Your task to perform on an android device: Add "razer blade" to the cart on newegg.com, then select checkout. Image 0: 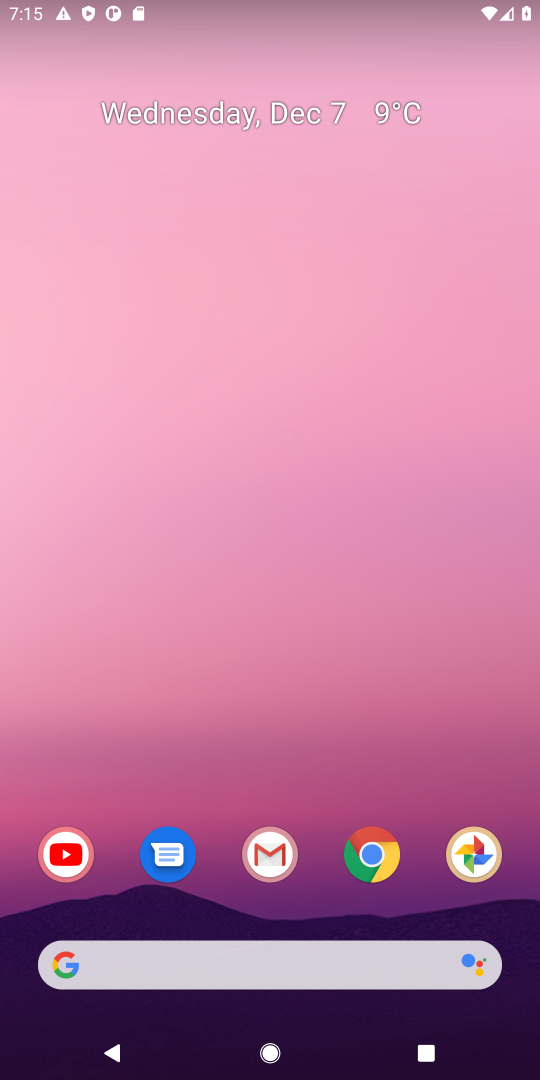
Step 0: click (311, 956)
Your task to perform on an android device: Add "razer blade" to the cart on newegg.com, then select checkout. Image 1: 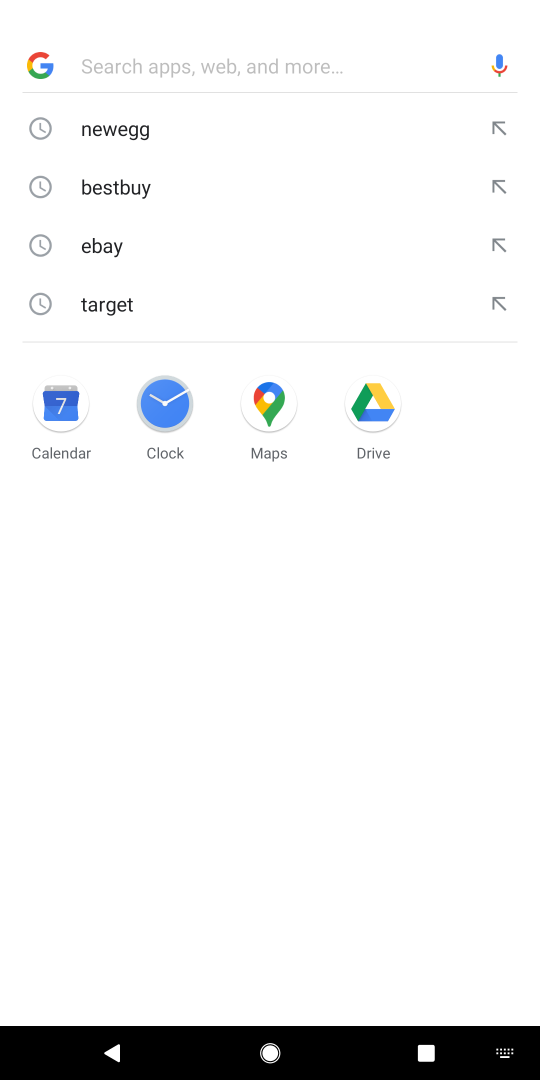
Step 1: type "newegg"
Your task to perform on an android device: Add "razer blade" to the cart on newegg.com, then select checkout. Image 2: 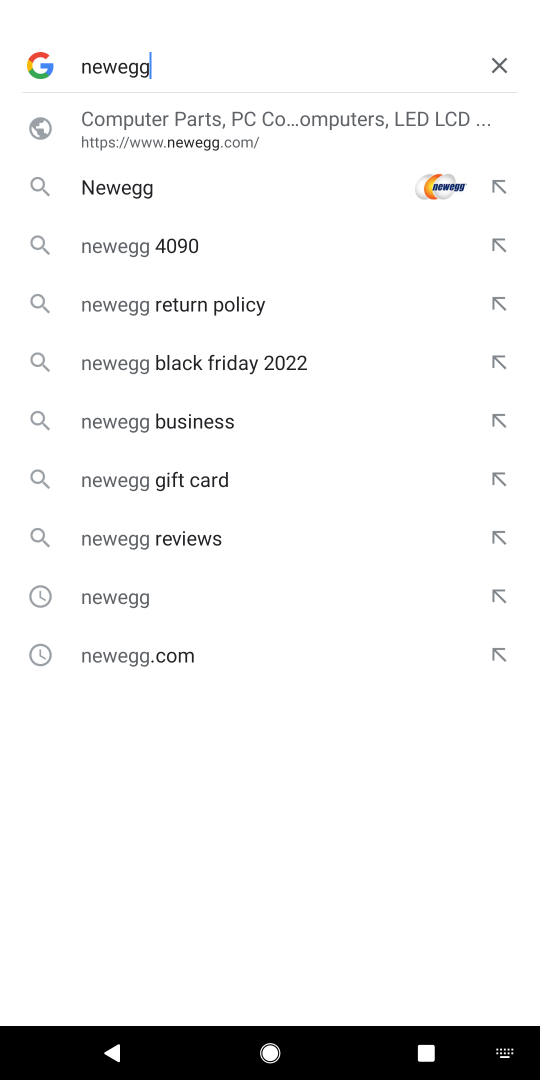
Step 2: click (163, 122)
Your task to perform on an android device: Add "razer blade" to the cart on newegg.com, then select checkout. Image 3: 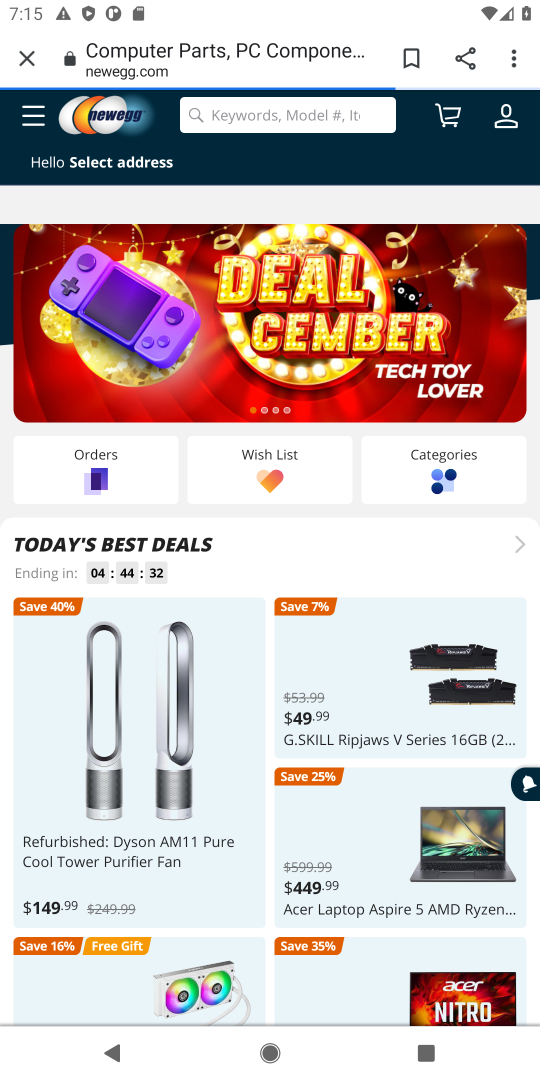
Step 3: click (205, 122)
Your task to perform on an android device: Add "razer blade" to the cart on newegg.com, then select checkout. Image 4: 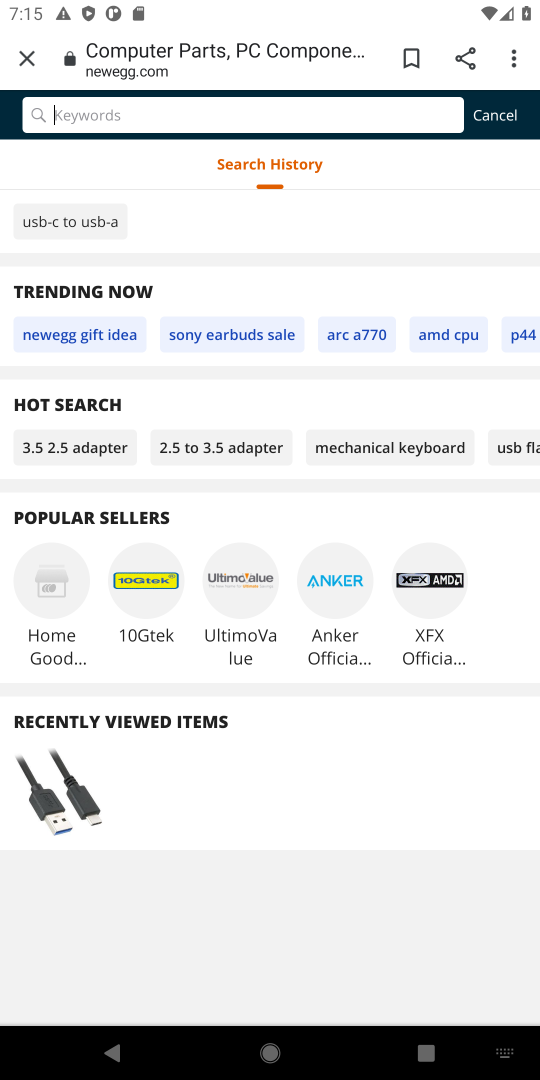
Step 4: type "razer blade"
Your task to perform on an android device: Add "razer blade" to the cart on newegg.com, then select checkout. Image 5: 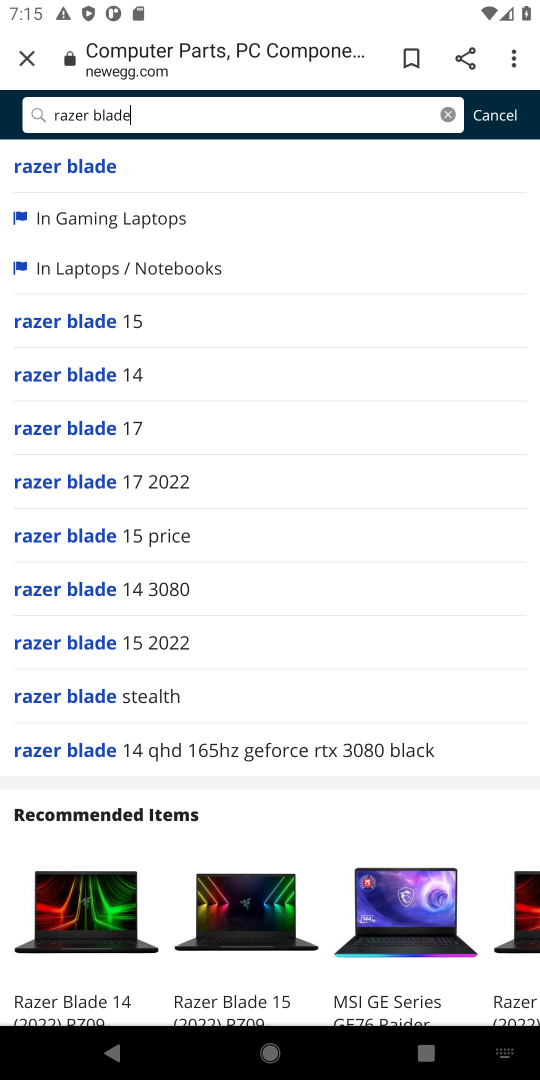
Step 5: click (39, 160)
Your task to perform on an android device: Add "razer blade" to the cart on newegg.com, then select checkout. Image 6: 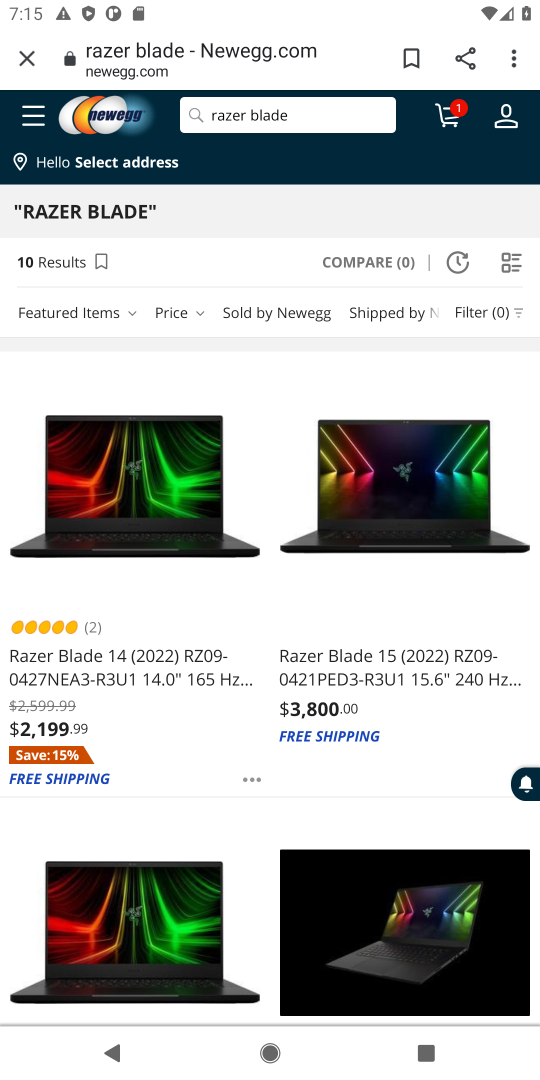
Step 6: click (100, 514)
Your task to perform on an android device: Add "razer blade" to the cart on newegg.com, then select checkout. Image 7: 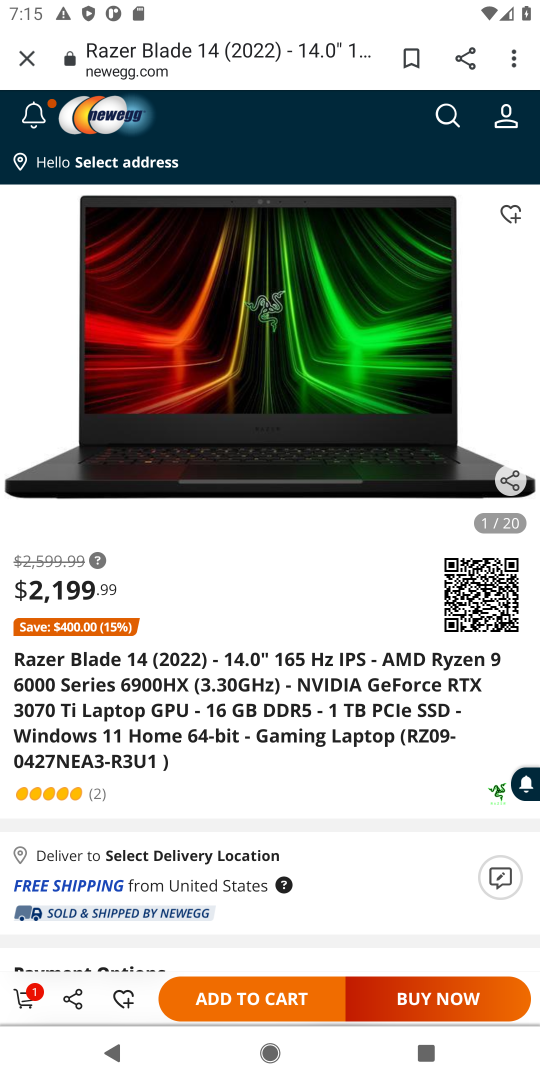
Step 7: click (265, 986)
Your task to perform on an android device: Add "razer blade" to the cart on newegg.com, then select checkout. Image 8: 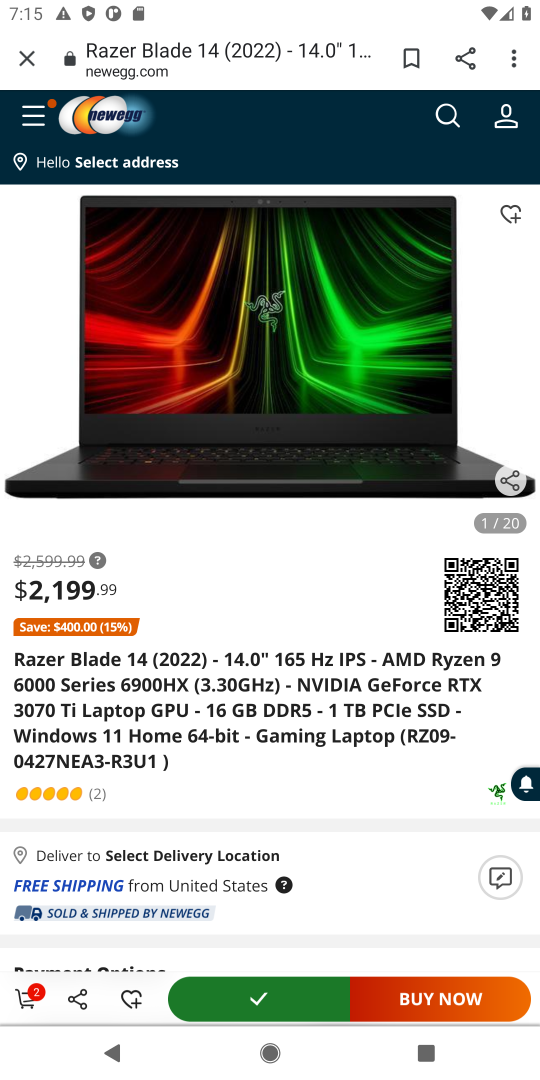
Step 8: task complete